Your task to perform on an android device: Go to Amazon Image 0: 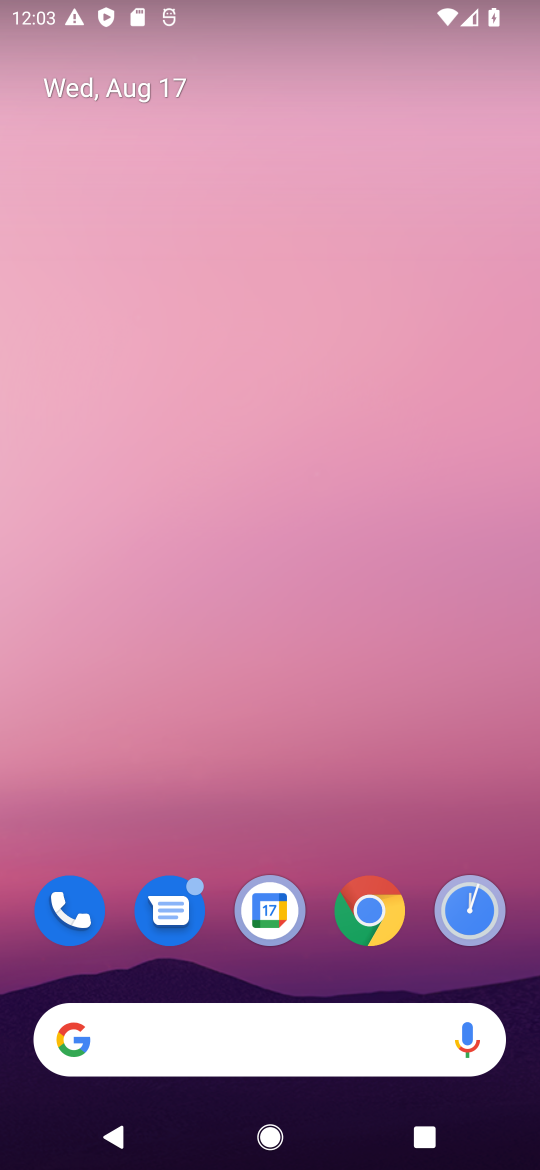
Step 0: click (344, 919)
Your task to perform on an android device: Go to Amazon Image 1: 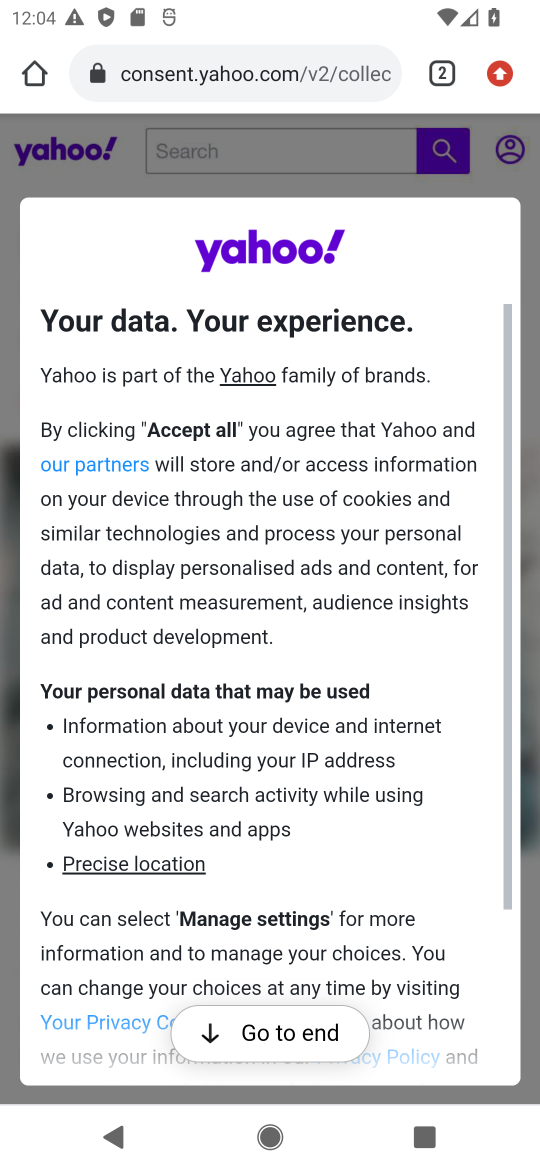
Step 1: click (433, 68)
Your task to perform on an android device: Go to Amazon Image 2: 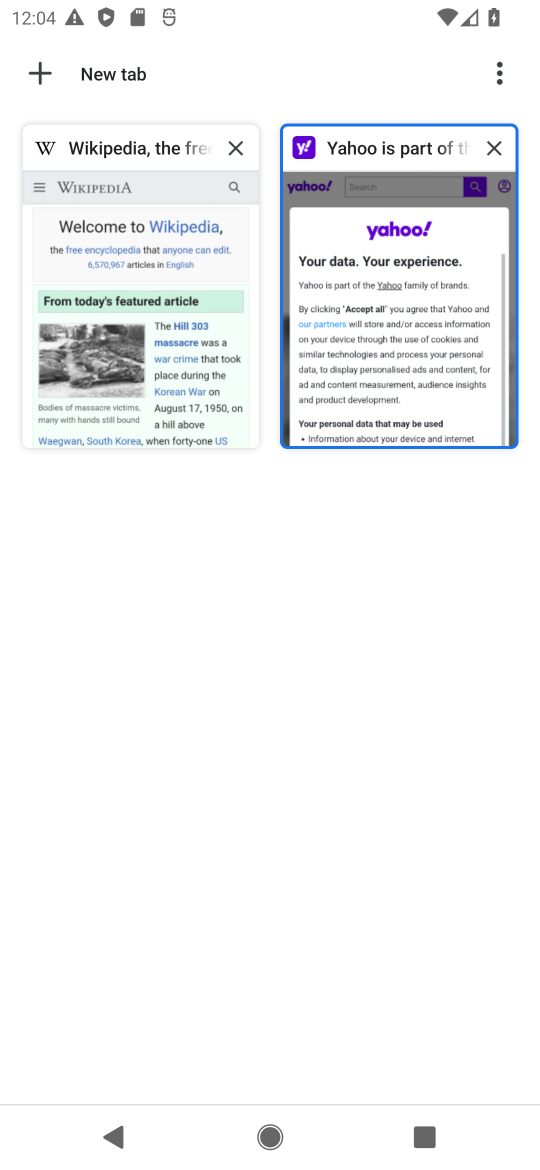
Step 2: click (34, 70)
Your task to perform on an android device: Go to Amazon Image 3: 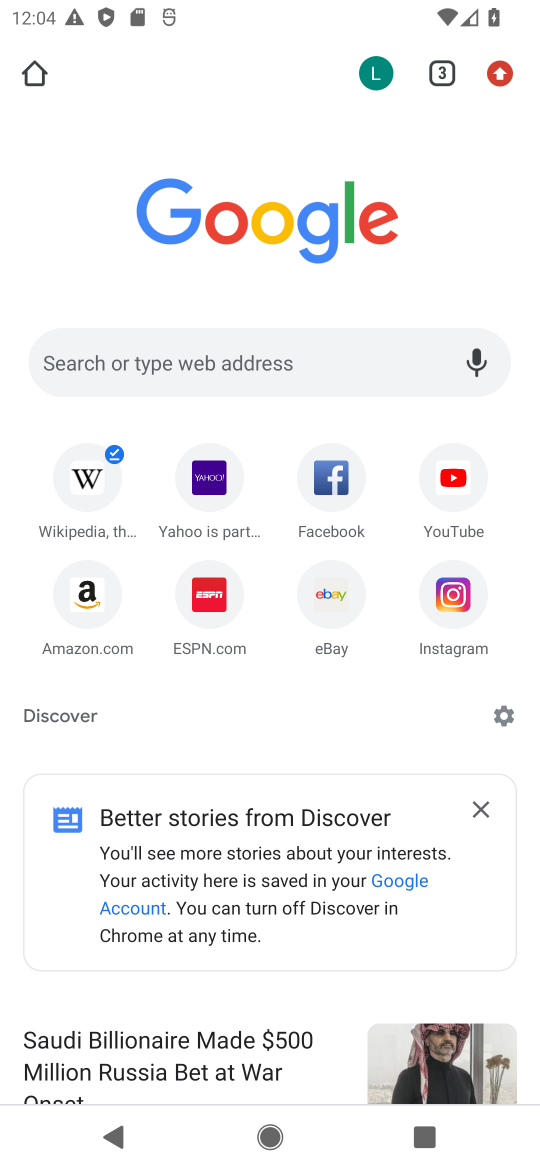
Step 3: click (78, 590)
Your task to perform on an android device: Go to Amazon Image 4: 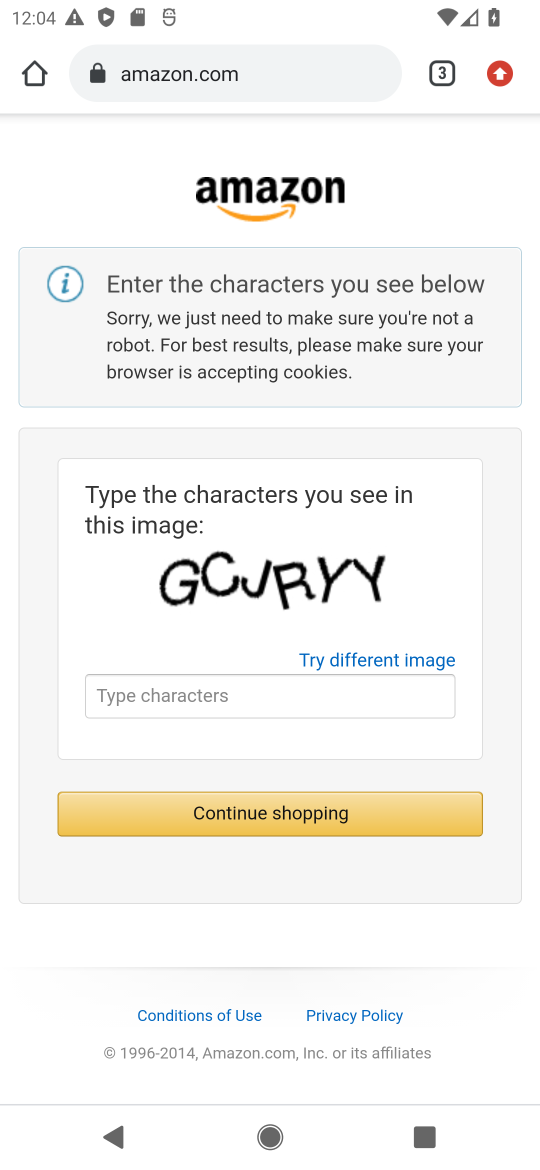
Step 4: task complete